Your task to perform on an android device: Find coffee shops on Maps Image 0: 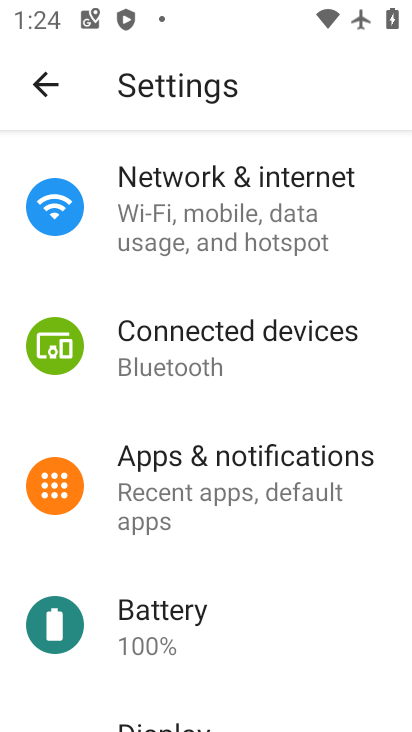
Step 0: press home button
Your task to perform on an android device: Find coffee shops on Maps Image 1: 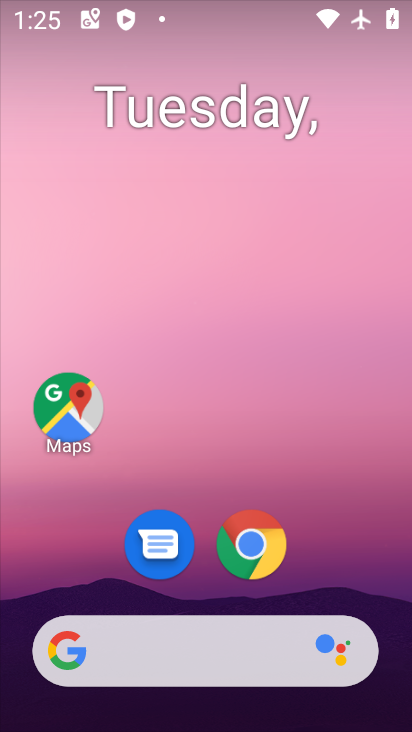
Step 1: click (73, 406)
Your task to perform on an android device: Find coffee shops on Maps Image 2: 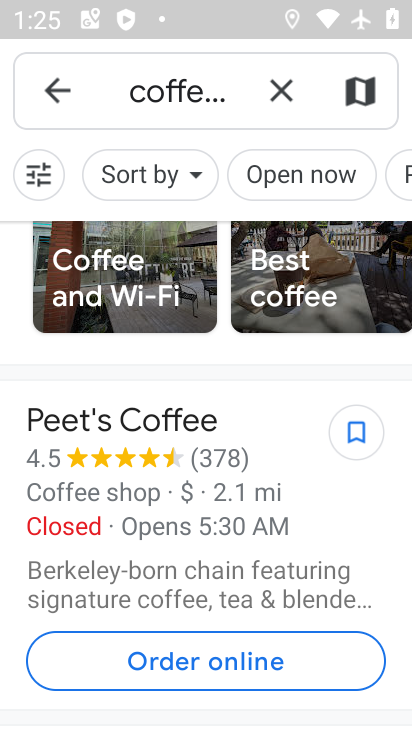
Step 2: task complete